Your task to perform on an android device: Show me the alarms in the clock app Image 0: 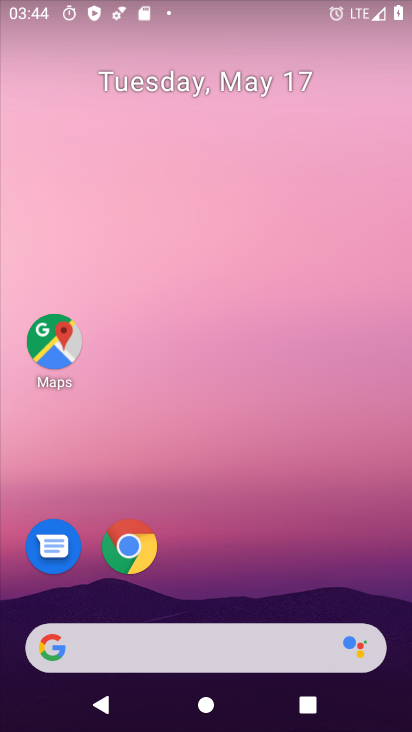
Step 0: drag from (299, 563) to (271, 26)
Your task to perform on an android device: Show me the alarms in the clock app Image 1: 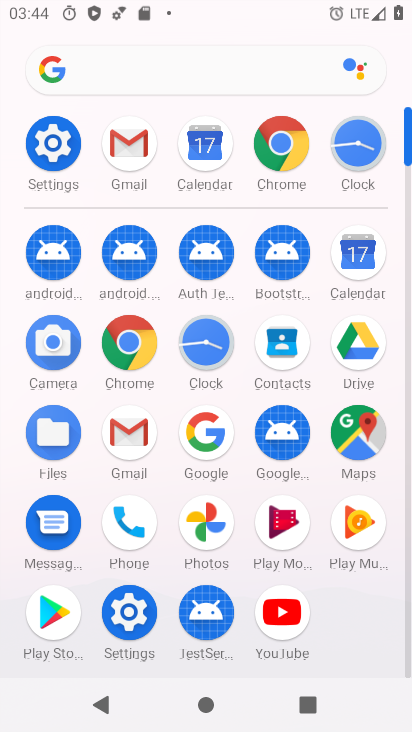
Step 1: click (356, 151)
Your task to perform on an android device: Show me the alarms in the clock app Image 2: 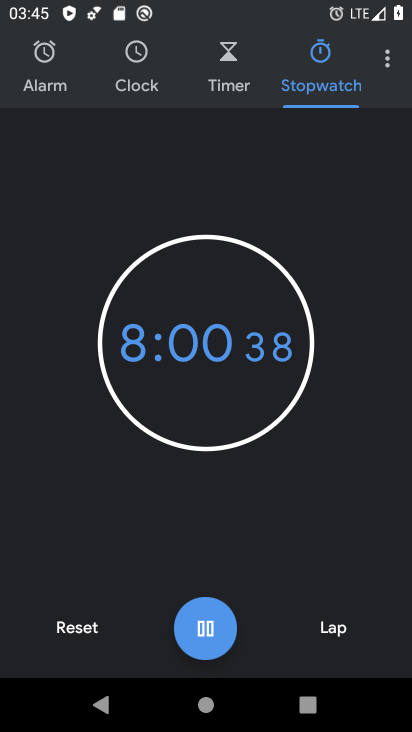
Step 2: click (38, 66)
Your task to perform on an android device: Show me the alarms in the clock app Image 3: 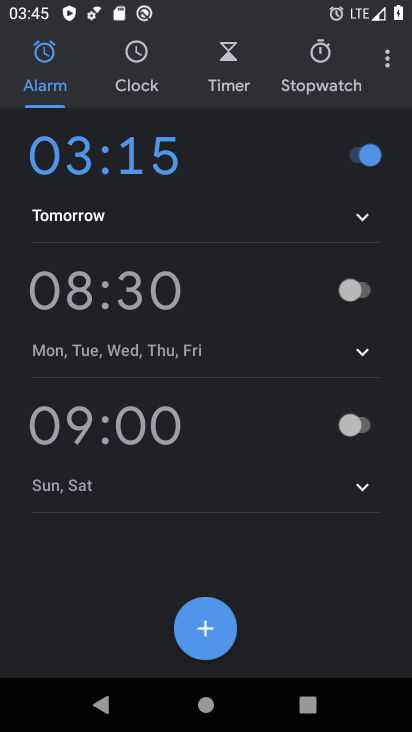
Step 3: task complete